Your task to perform on an android device: Open Chrome and go to settings Image 0: 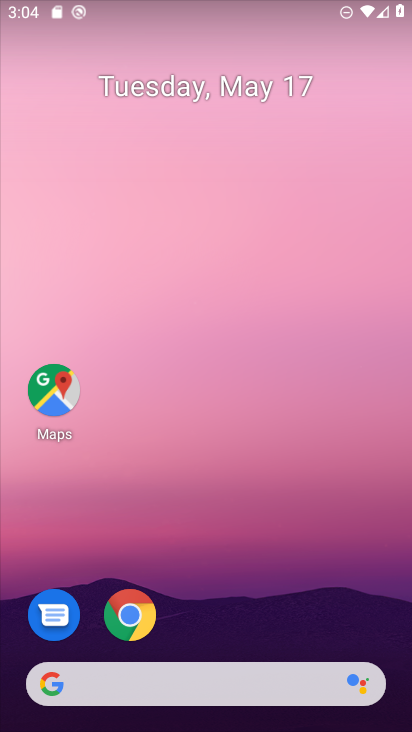
Step 0: click (129, 618)
Your task to perform on an android device: Open Chrome and go to settings Image 1: 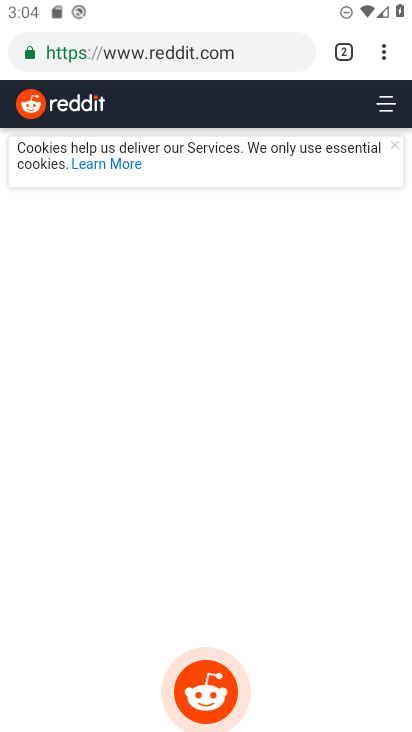
Step 1: click (387, 62)
Your task to perform on an android device: Open Chrome and go to settings Image 2: 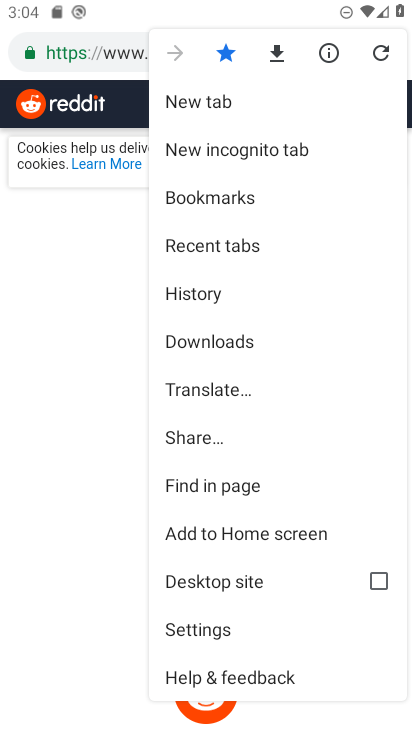
Step 2: click (193, 625)
Your task to perform on an android device: Open Chrome and go to settings Image 3: 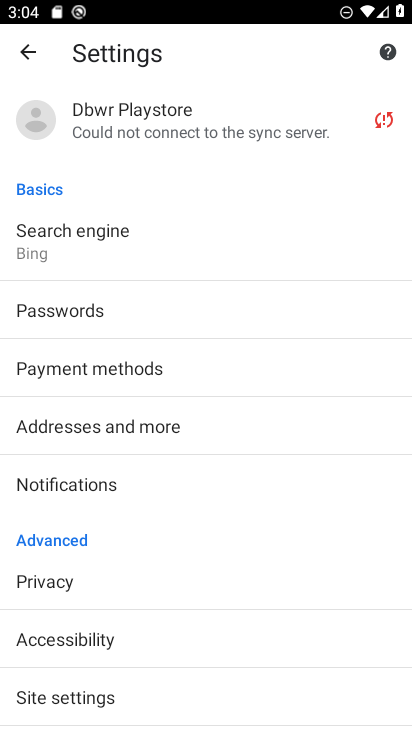
Step 3: task complete